Your task to perform on an android device: Open my contact list Image 0: 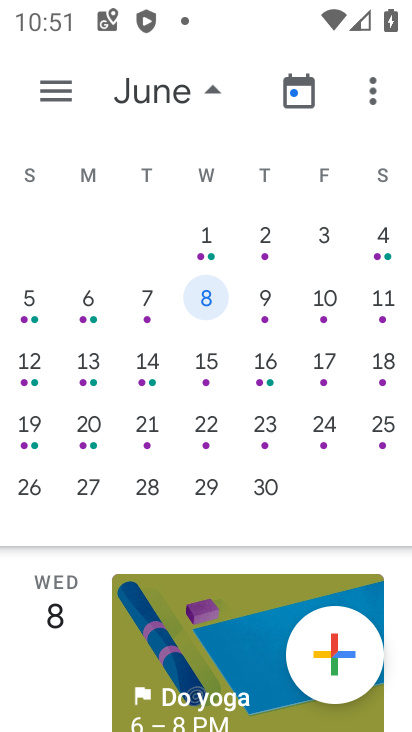
Step 0: press home button
Your task to perform on an android device: Open my contact list Image 1: 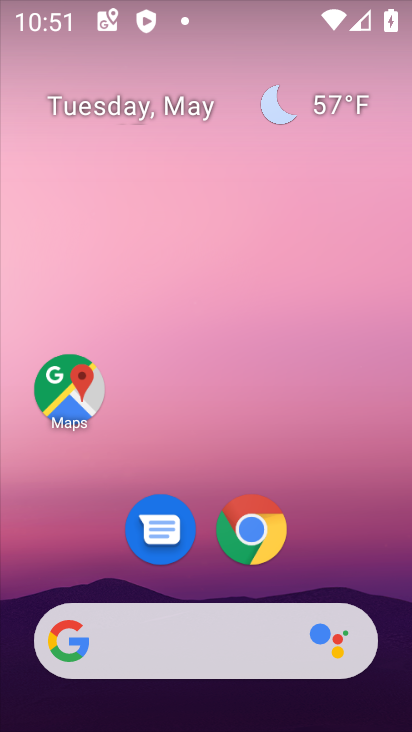
Step 1: drag from (189, 577) to (215, 61)
Your task to perform on an android device: Open my contact list Image 2: 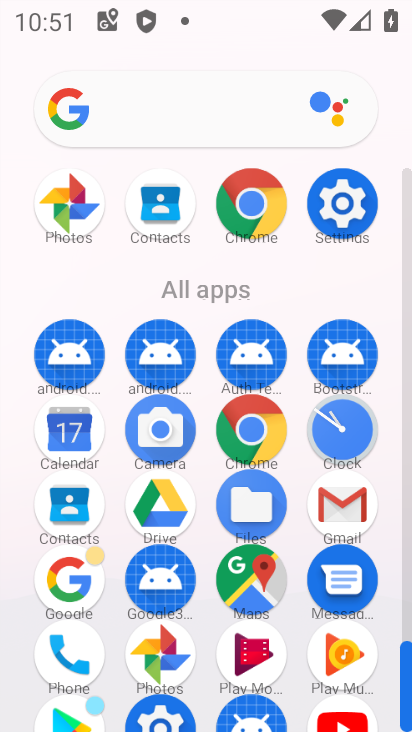
Step 2: click (153, 215)
Your task to perform on an android device: Open my contact list Image 3: 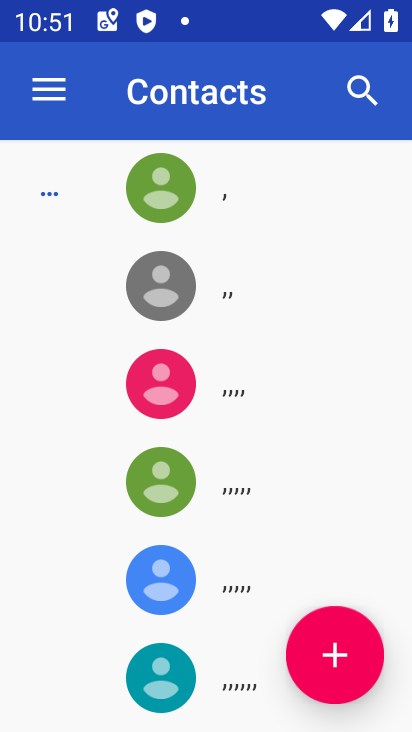
Step 3: task complete